Your task to perform on an android device: toggle improve location accuracy Image 0: 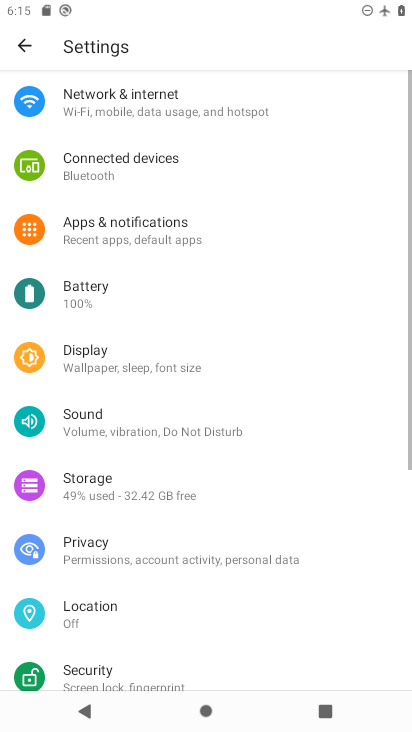
Step 0: press home button
Your task to perform on an android device: toggle improve location accuracy Image 1: 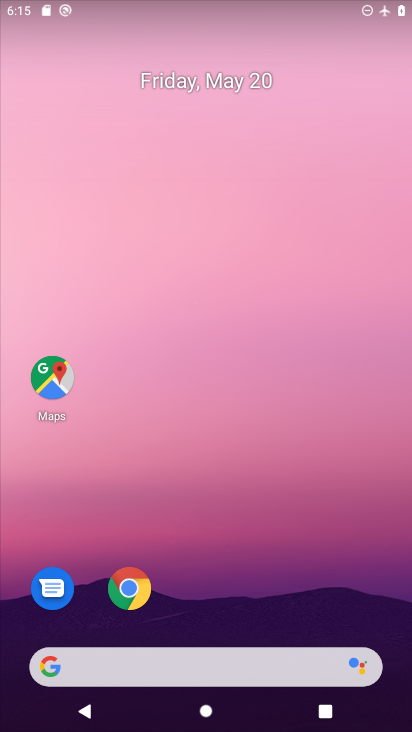
Step 1: drag from (206, 545) to (195, 180)
Your task to perform on an android device: toggle improve location accuracy Image 2: 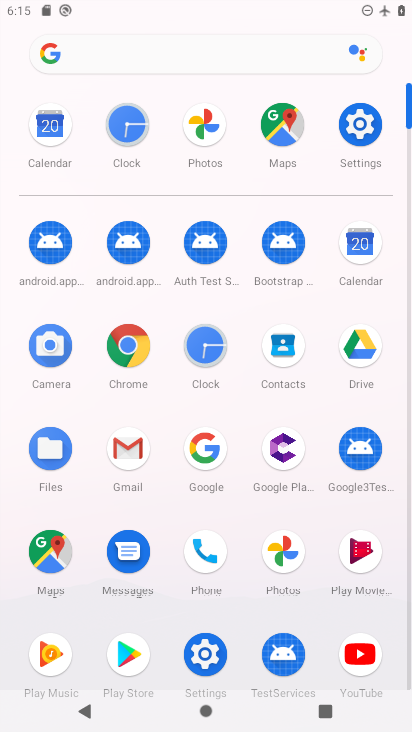
Step 2: click (355, 142)
Your task to perform on an android device: toggle improve location accuracy Image 3: 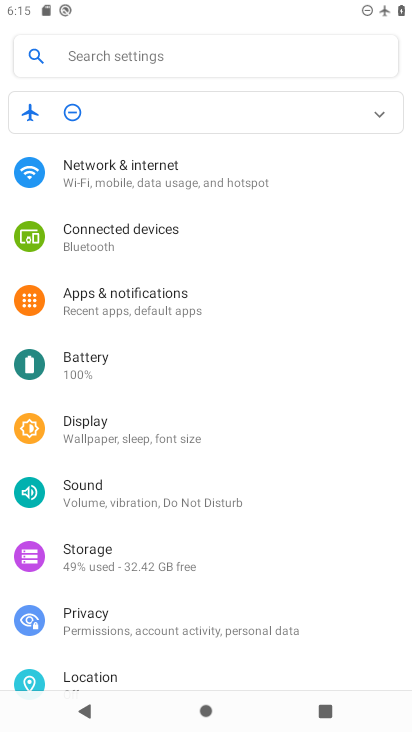
Step 3: click (104, 675)
Your task to perform on an android device: toggle improve location accuracy Image 4: 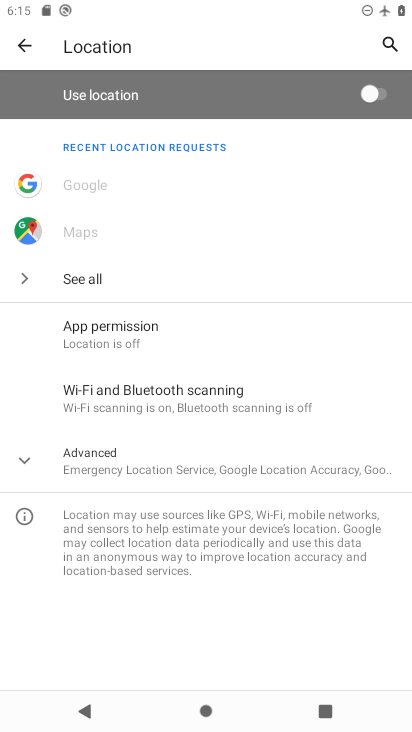
Step 4: click (82, 471)
Your task to perform on an android device: toggle improve location accuracy Image 5: 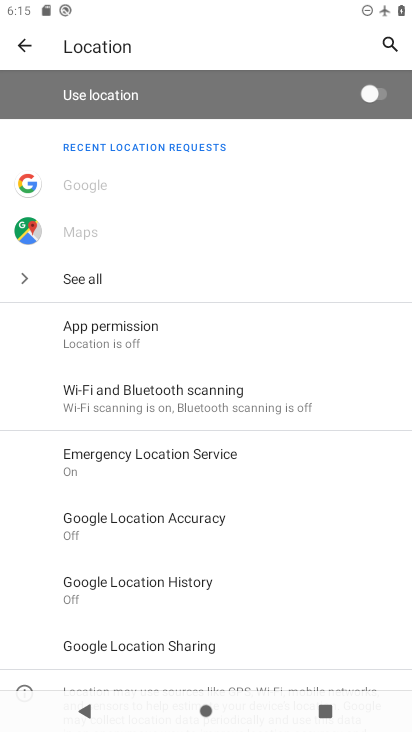
Step 5: click (149, 525)
Your task to perform on an android device: toggle improve location accuracy Image 6: 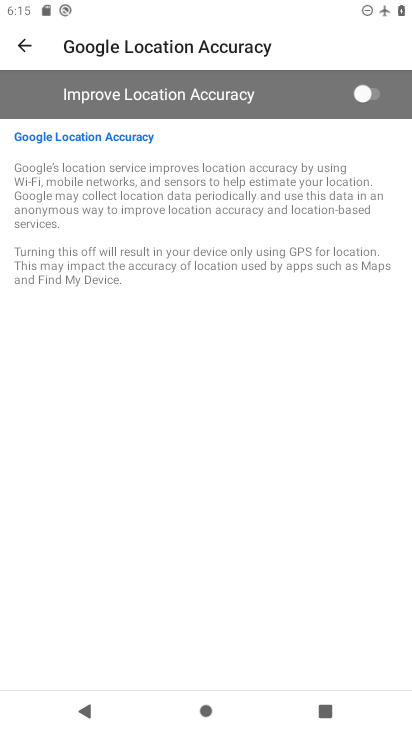
Step 6: click (379, 92)
Your task to perform on an android device: toggle improve location accuracy Image 7: 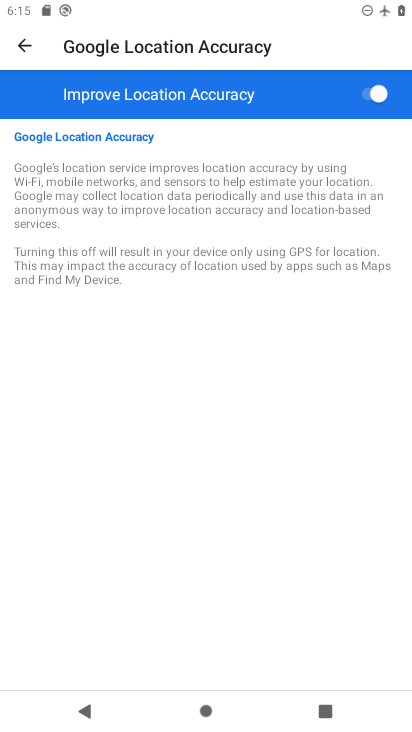
Step 7: task complete